Your task to perform on an android device: turn off notifications in google photos Image 0: 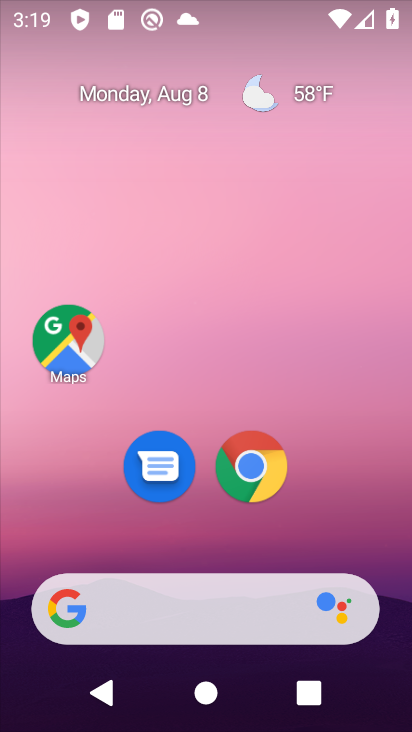
Step 0: drag from (214, 586) to (203, 135)
Your task to perform on an android device: turn off notifications in google photos Image 1: 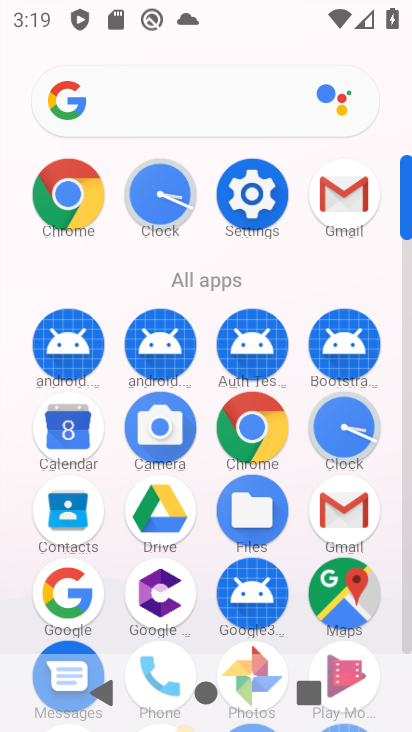
Step 1: drag from (281, 495) to (363, 4)
Your task to perform on an android device: turn off notifications in google photos Image 2: 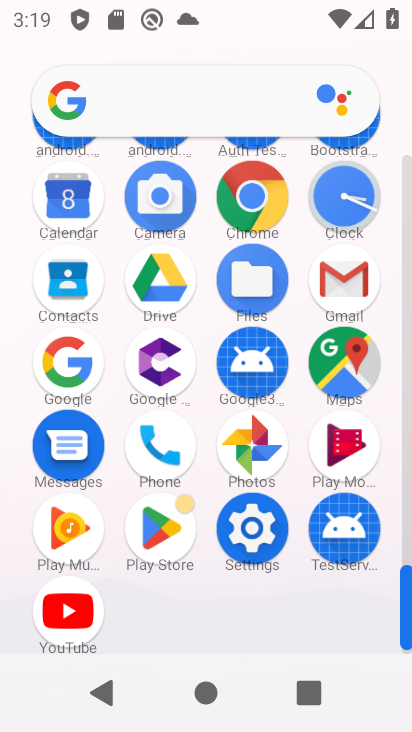
Step 2: click (262, 430)
Your task to perform on an android device: turn off notifications in google photos Image 3: 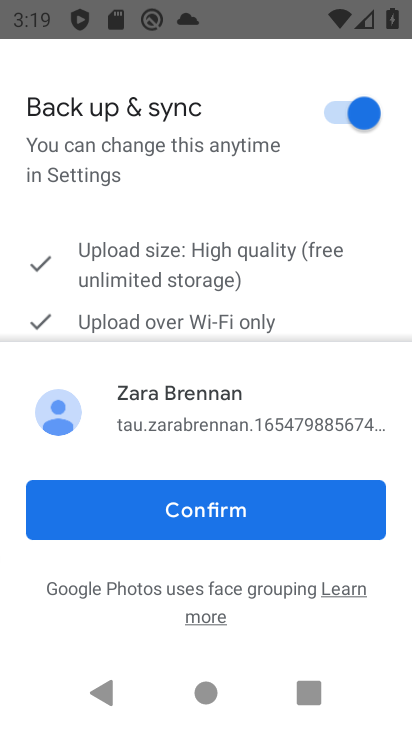
Step 3: click (214, 508)
Your task to perform on an android device: turn off notifications in google photos Image 4: 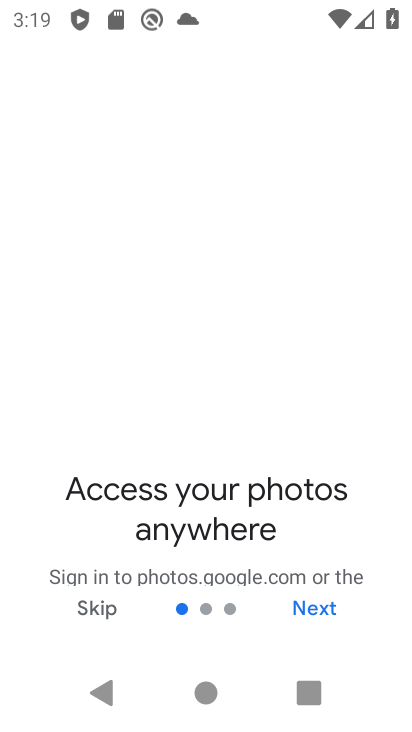
Step 4: click (301, 601)
Your task to perform on an android device: turn off notifications in google photos Image 5: 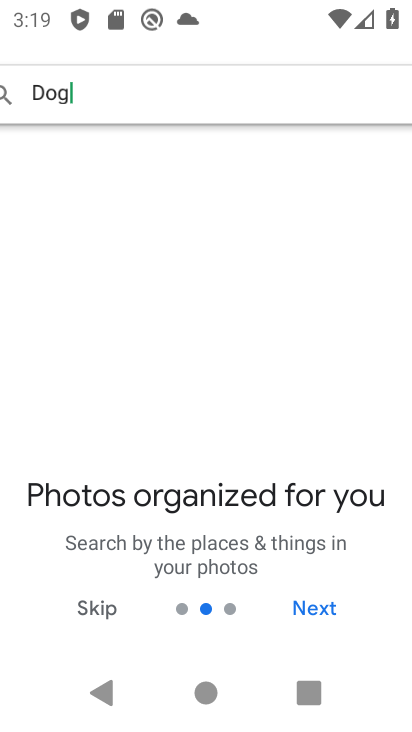
Step 5: click (301, 599)
Your task to perform on an android device: turn off notifications in google photos Image 6: 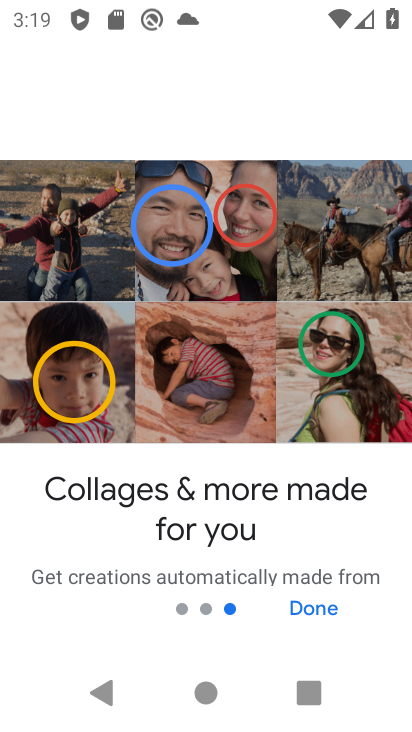
Step 6: click (301, 599)
Your task to perform on an android device: turn off notifications in google photos Image 7: 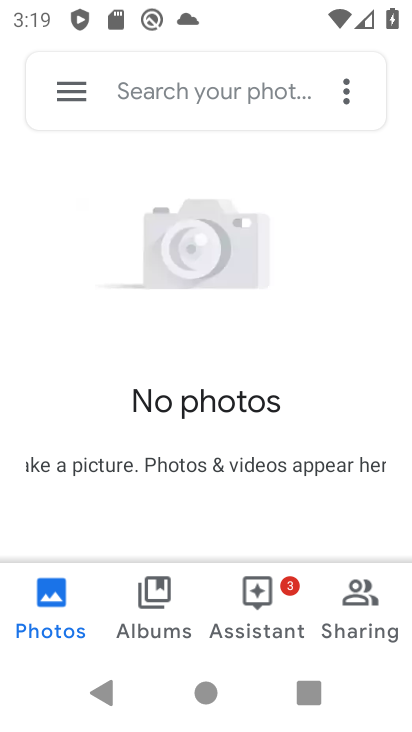
Step 7: click (56, 77)
Your task to perform on an android device: turn off notifications in google photos Image 8: 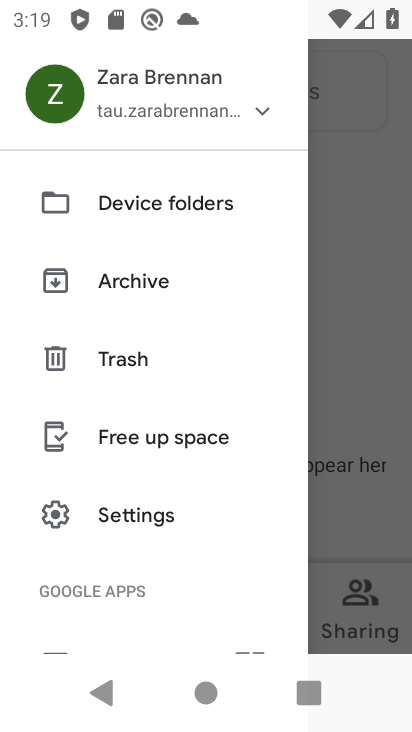
Step 8: click (126, 510)
Your task to perform on an android device: turn off notifications in google photos Image 9: 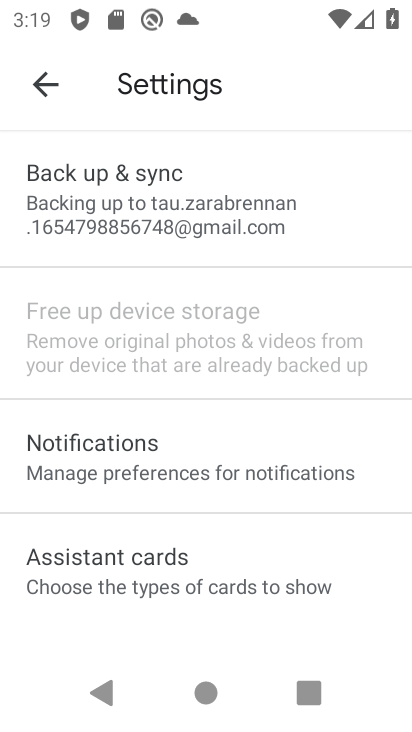
Step 9: click (204, 448)
Your task to perform on an android device: turn off notifications in google photos Image 10: 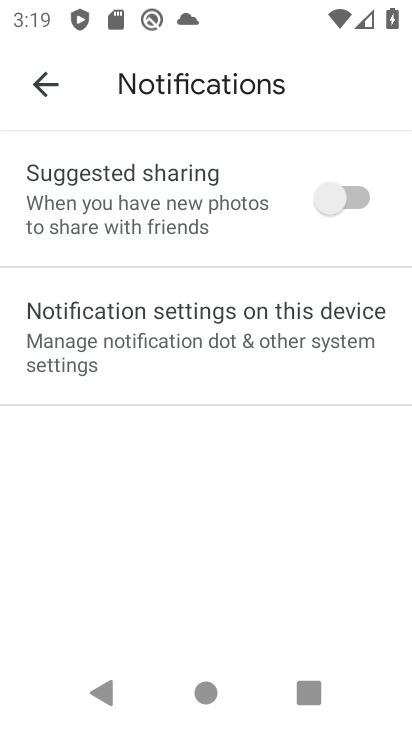
Step 10: click (295, 351)
Your task to perform on an android device: turn off notifications in google photos Image 11: 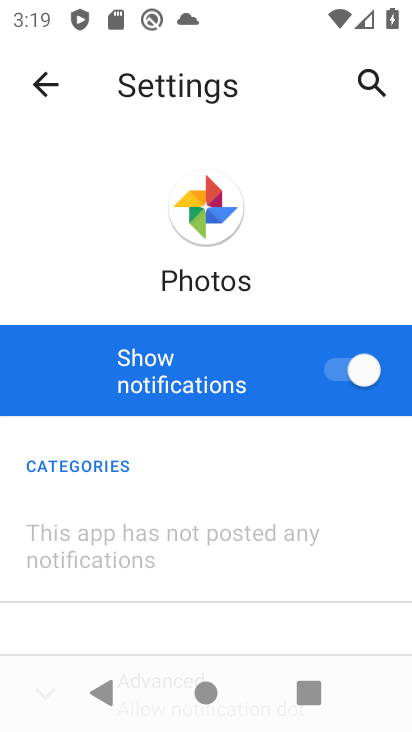
Step 11: click (358, 352)
Your task to perform on an android device: turn off notifications in google photos Image 12: 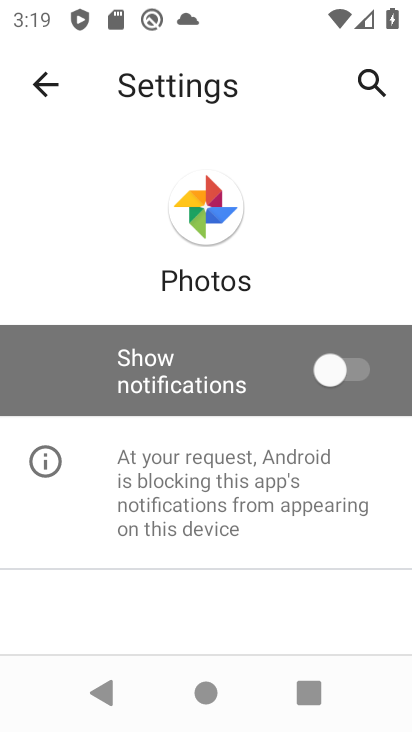
Step 12: task complete